Your task to perform on an android device: turn on data saver in the chrome app Image 0: 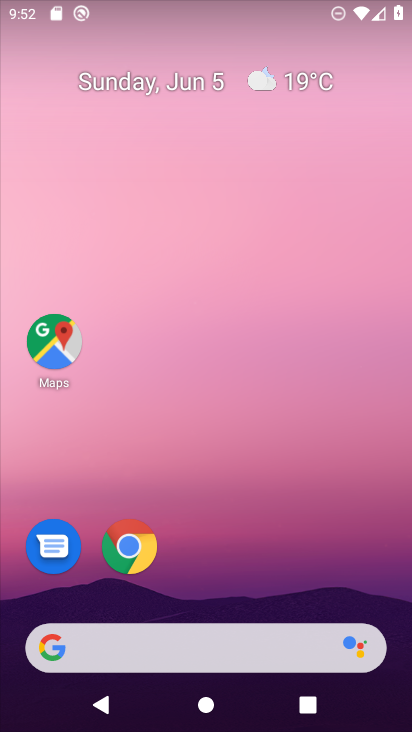
Step 0: drag from (198, 615) to (225, 28)
Your task to perform on an android device: turn on data saver in the chrome app Image 1: 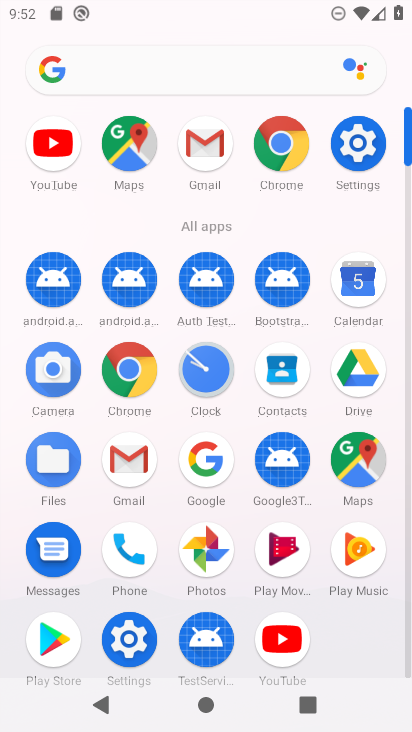
Step 1: click (279, 124)
Your task to perform on an android device: turn on data saver in the chrome app Image 2: 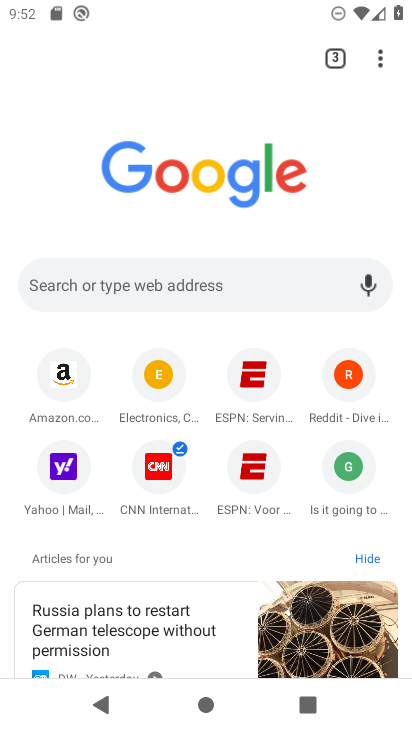
Step 2: click (377, 58)
Your task to perform on an android device: turn on data saver in the chrome app Image 3: 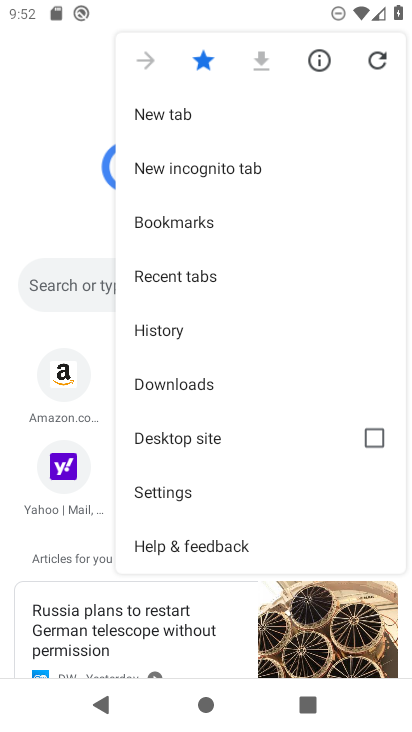
Step 3: click (198, 493)
Your task to perform on an android device: turn on data saver in the chrome app Image 4: 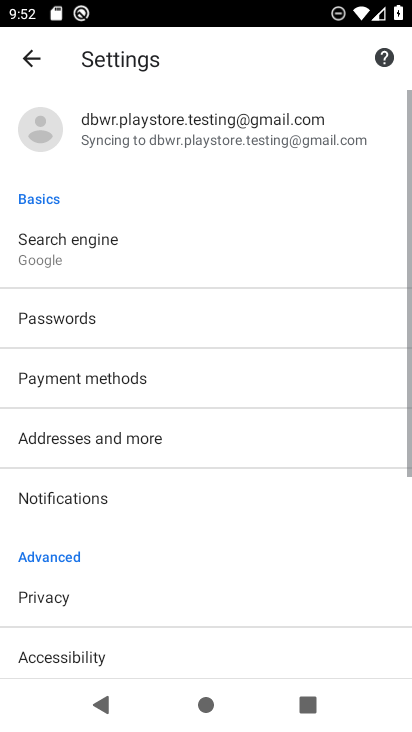
Step 4: drag from (198, 493) to (43, 56)
Your task to perform on an android device: turn on data saver in the chrome app Image 5: 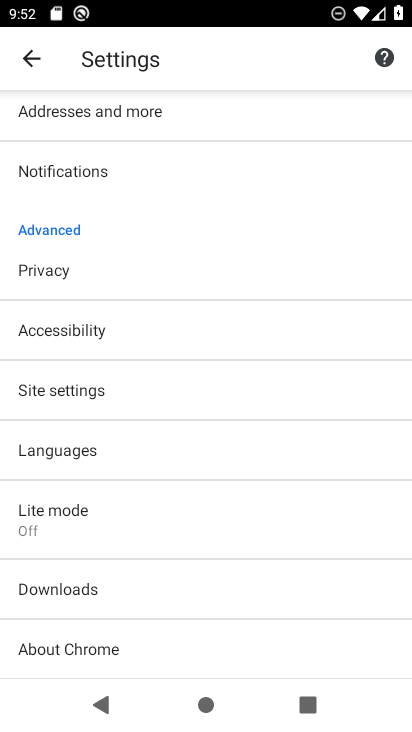
Step 5: click (64, 557)
Your task to perform on an android device: turn on data saver in the chrome app Image 6: 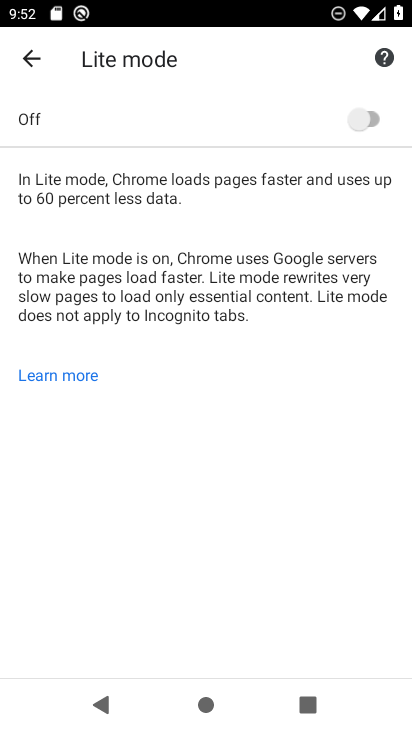
Step 6: click (358, 120)
Your task to perform on an android device: turn on data saver in the chrome app Image 7: 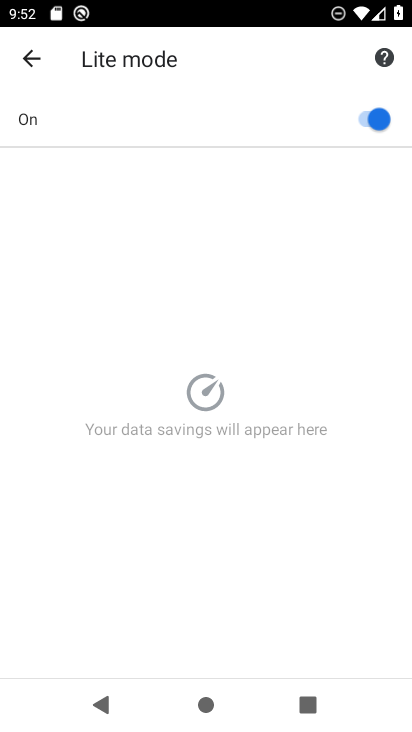
Step 7: task complete